Your task to perform on an android device: Go to wifi settings Image 0: 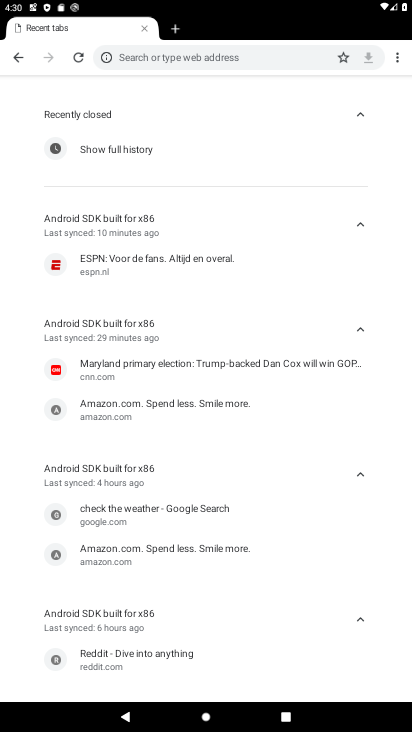
Step 0: press home button
Your task to perform on an android device: Go to wifi settings Image 1: 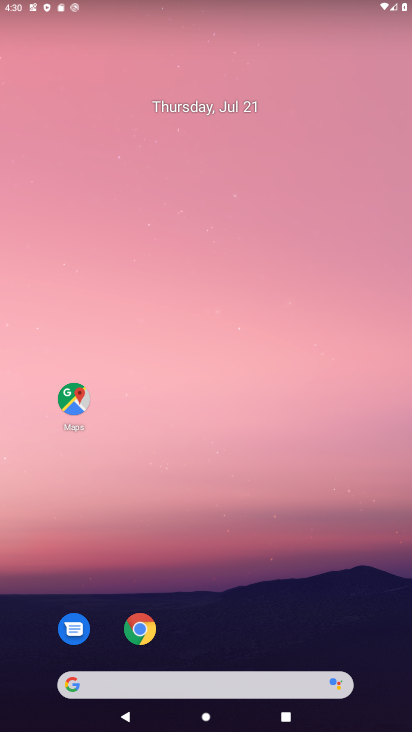
Step 1: drag from (323, 616) to (249, 43)
Your task to perform on an android device: Go to wifi settings Image 2: 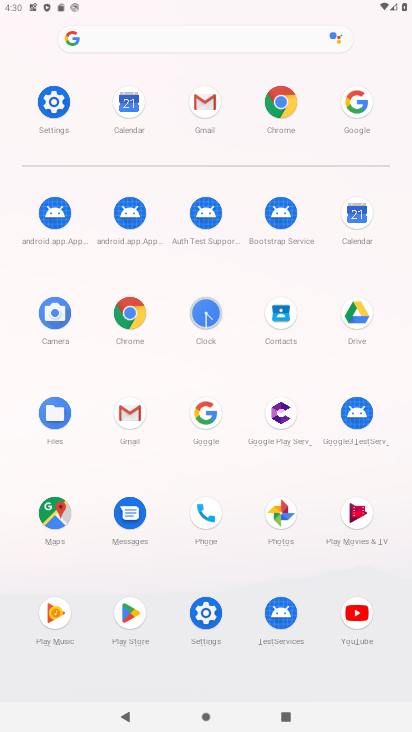
Step 2: click (48, 97)
Your task to perform on an android device: Go to wifi settings Image 3: 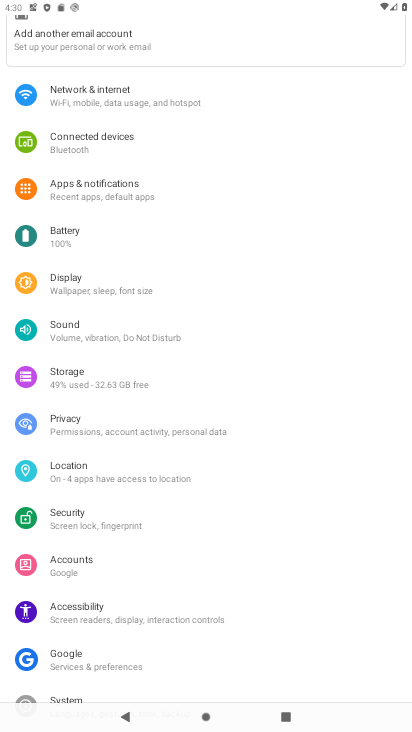
Step 3: click (106, 100)
Your task to perform on an android device: Go to wifi settings Image 4: 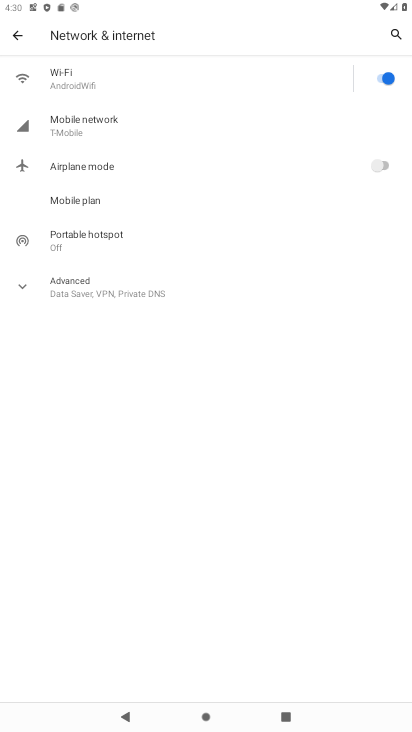
Step 4: click (76, 75)
Your task to perform on an android device: Go to wifi settings Image 5: 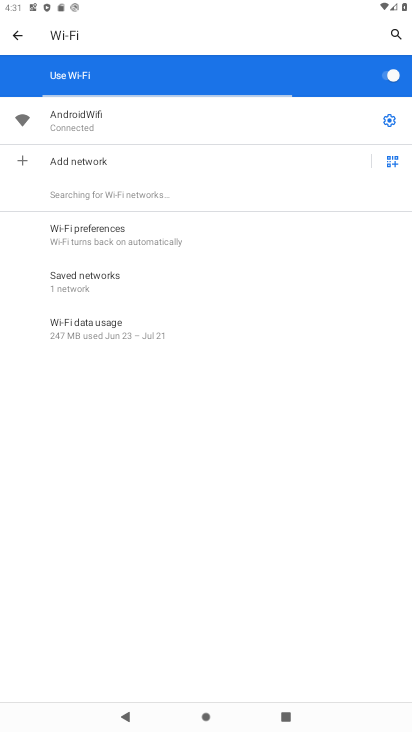
Step 5: task complete